Your task to perform on an android device: turn notification dots off Image 0: 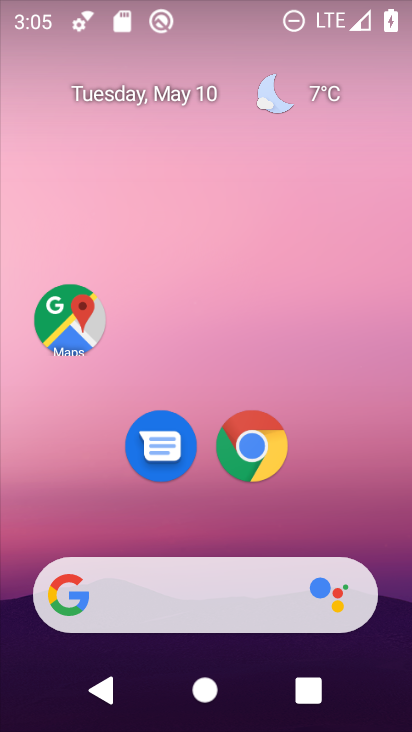
Step 0: drag from (219, 464) to (238, 122)
Your task to perform on an android device: turn notification dots off Image 1: 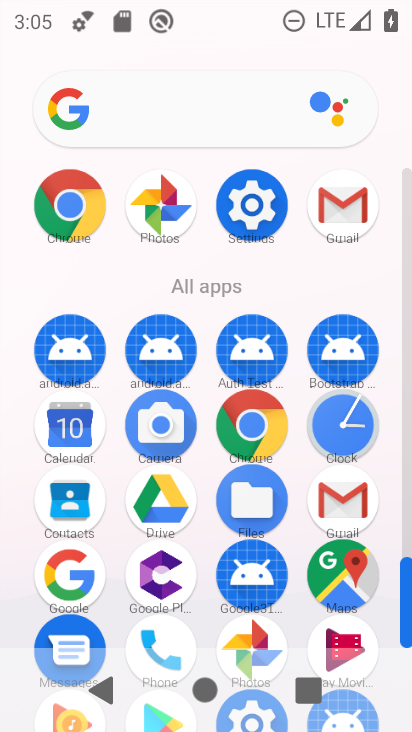
Step 1: click (249, 192)
Your task to perform on an android device: turn notification dots off Image 2: 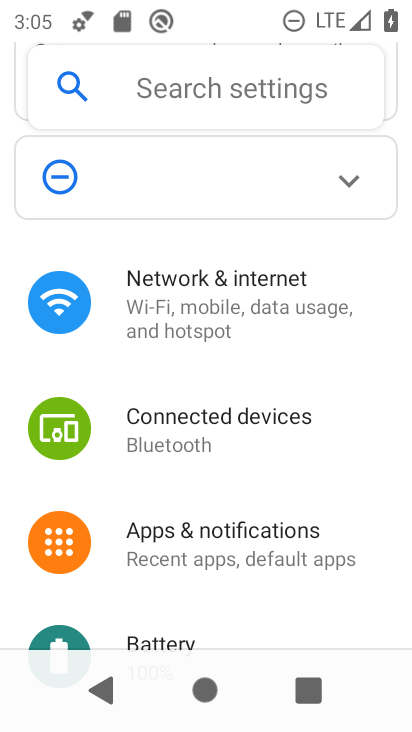
Step 2: click (209, 534)
Your task to perform on an android device: turn notification dots off Image 3: 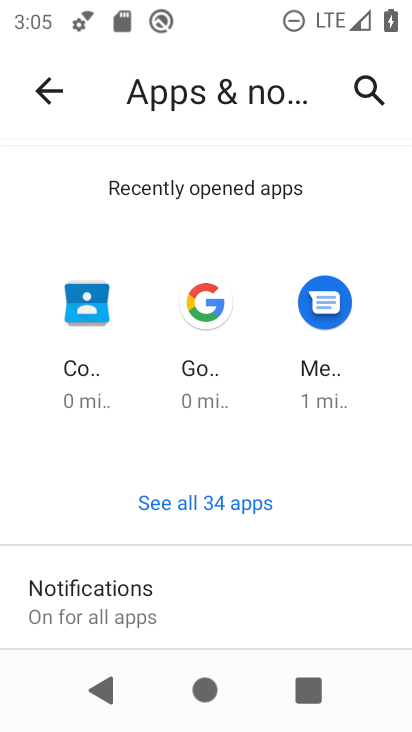
Step 3: drag from (238, 565) to (267, 282)
Your task to perform on an android device: turn notification dots off Image 4: 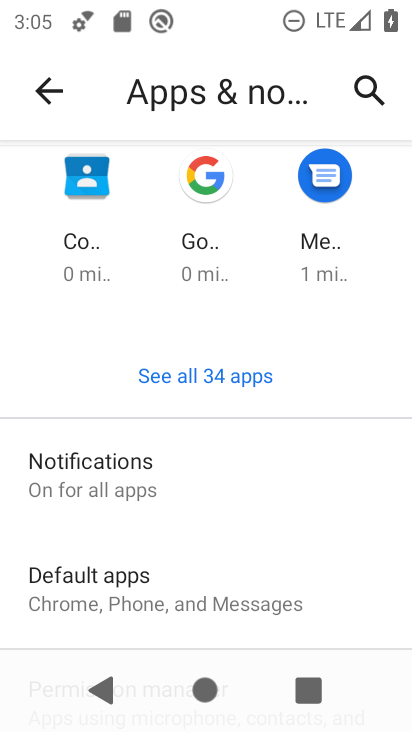
Step 4: click (174, 485)
Your task to perform on an android device: turn notification dots off Image 5: 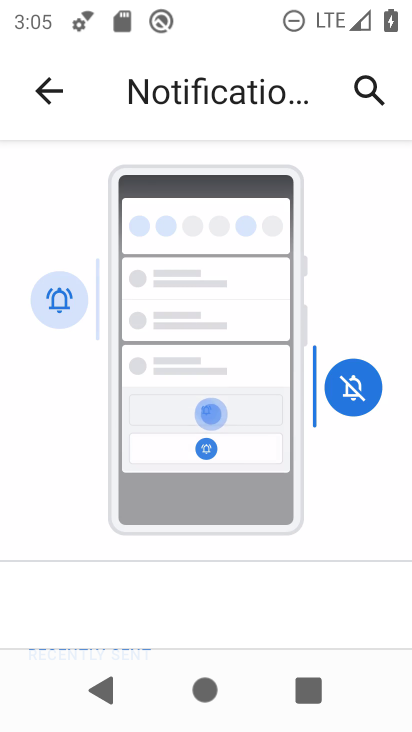
Step 5: drag from (229, 543) to (227, 171)
Your task to perform on an android device: turn notification dots off Image 6: 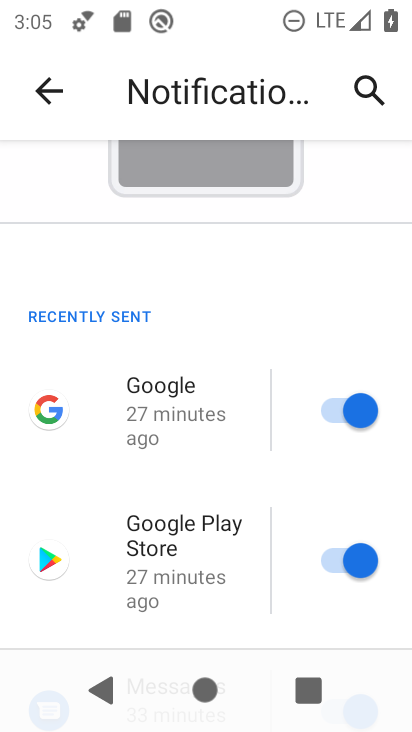
Step 6: drag from (195, 519) to (273, 186)
Your task to perform on an android device: turn notification dots off Image 7: 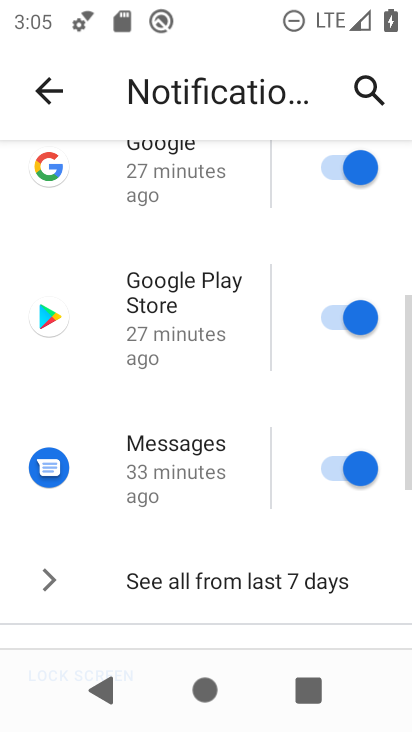
Step 7: drag from (197, 547) to (253, 217)
Your task to perform on an android device: turn notification dots off Image 8: 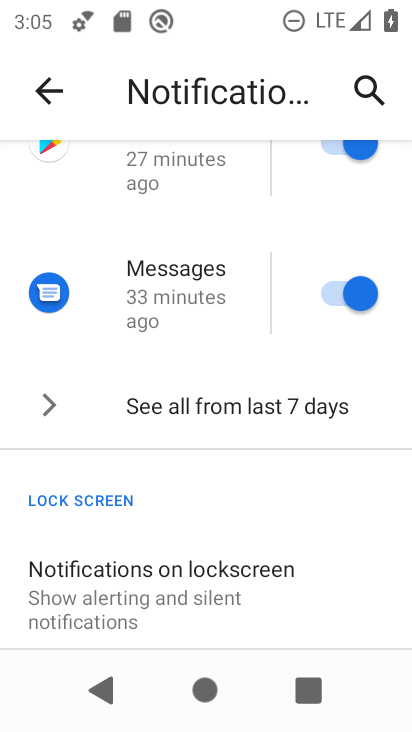
Step 8: drag from (198, 509) to (238, 284)
Your task to perform on an android device: turn notification dots off Image 9: 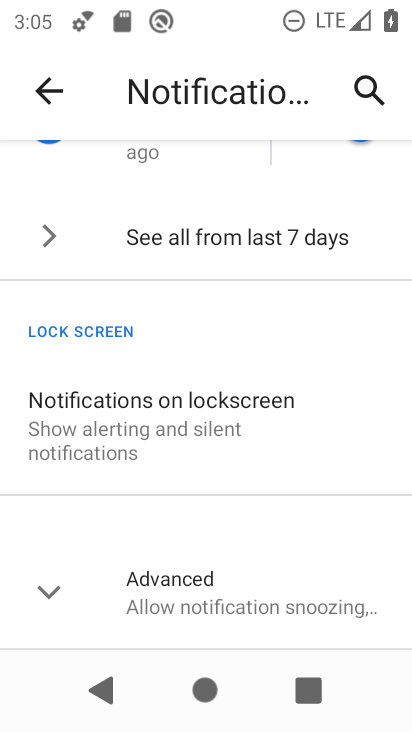
Step 9: drag from (189, 529) to (237, 336)
Your task to perform on an android device: turn notification dots off Image 10: 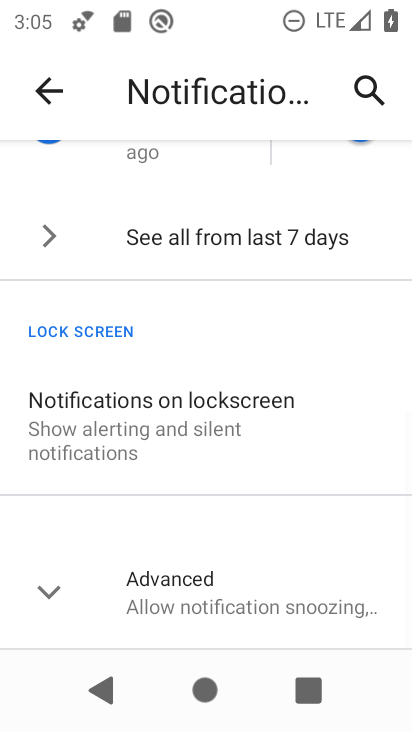
Step 10: click (174, 572)
Your task to perform on an android device: turn notification dots off Image 11: 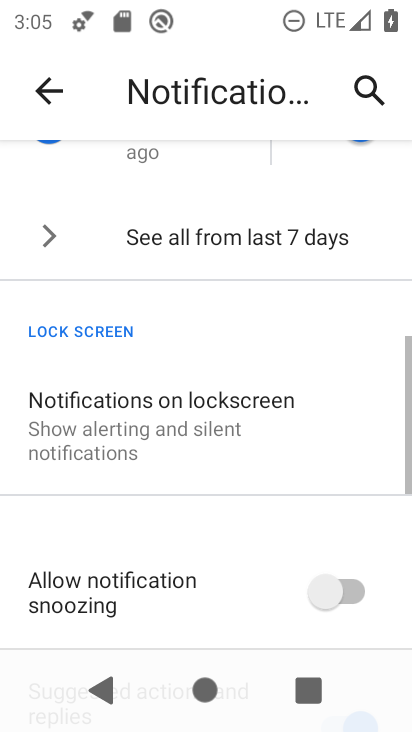
Step 11: drag from (192, 567) to (228, 167)
Your task to perform on an android device: turn notification dots off Image 12: 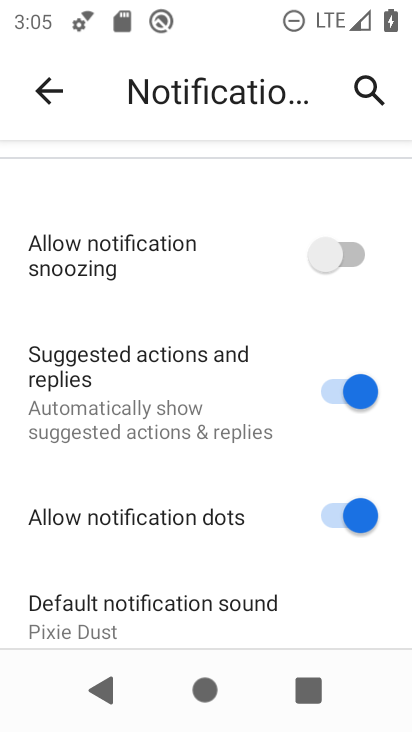
Step 12: click (342, 514)
Your task to perform on an android device: turn notification dots off Image 13: 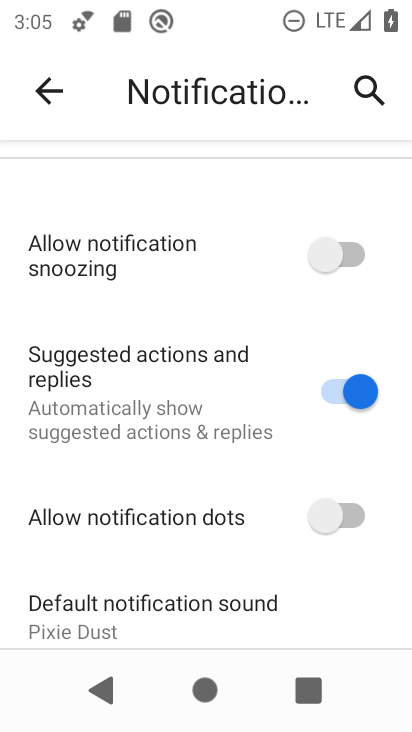
Step 13: task complete